Your task to perform on an android device: Go to Wikipedia Image 0: 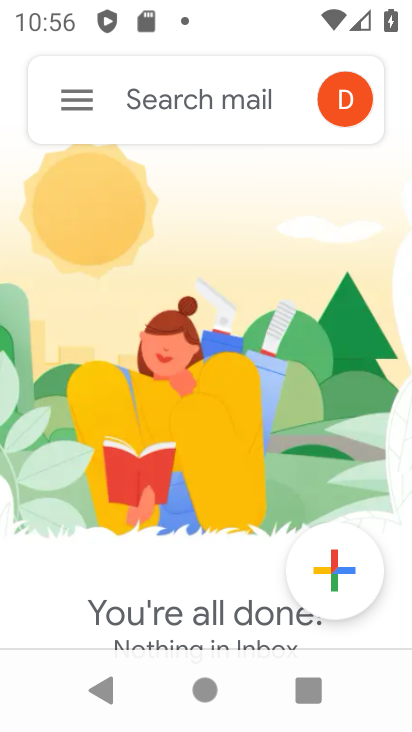
Step 0: press home button
Your task to perform on an android device: Go to Wikipedia Image 1: 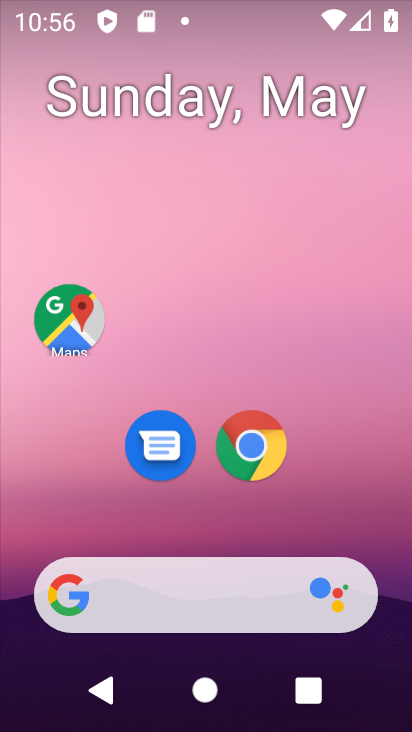
Step 1: click (252, 443)
Your task to perform on an android device: Go to Wikipedia Image 2: 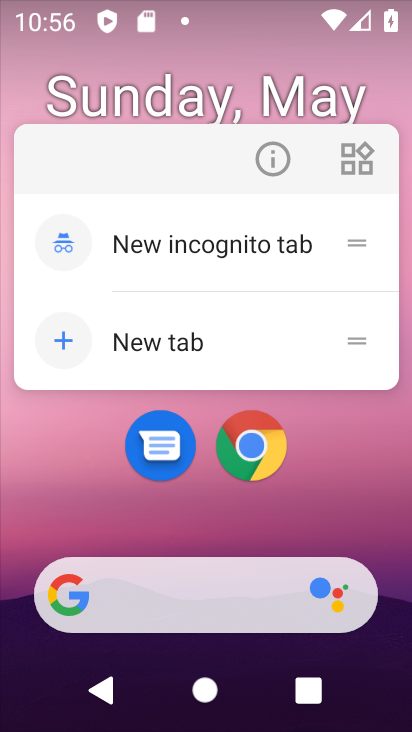
Step 2: click (329, 472)
Your task to perform on an android device: Go to Wikipedia Image 3: 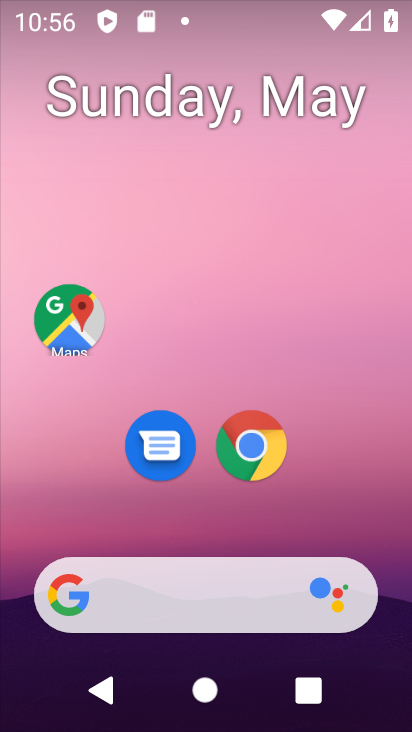
Step 3: click (249, 453)
Your task to perform on an android device: Go to Wikipedia Image 4: 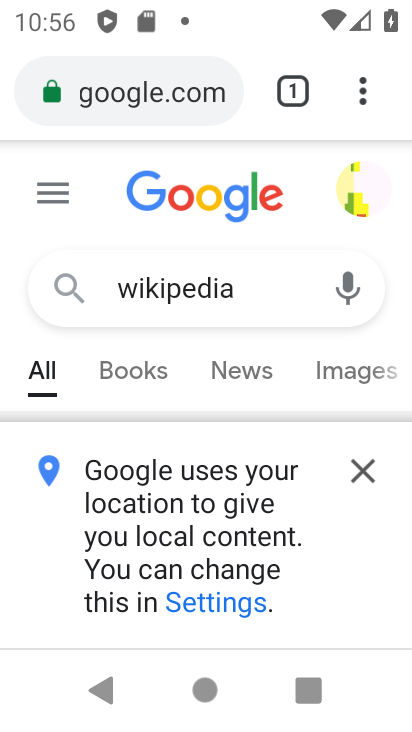
Step 4: click (125, 93)
Your task to perform on an android device: Go to Wikipedia Image 5: 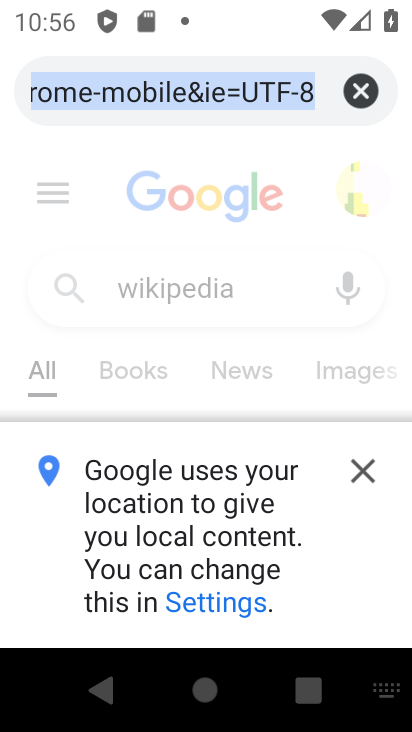
Step 5: type "wikipedia"
Your task to perform on an android device: Go to Wikipedia Image 6: 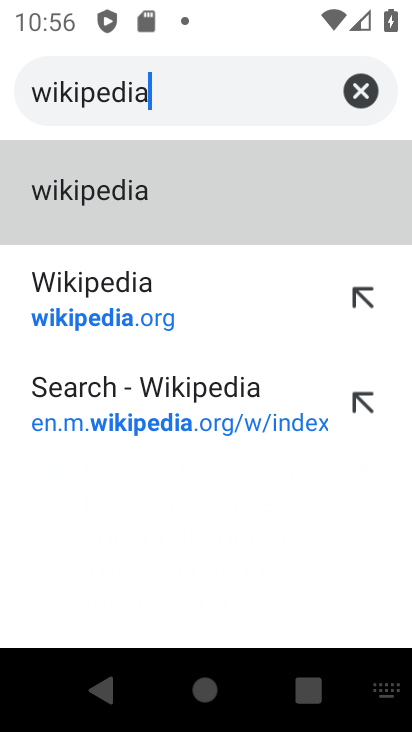
Step 6: click (127, 219)
Your task to perform on an android device: Go to Wikipedia Image 7: 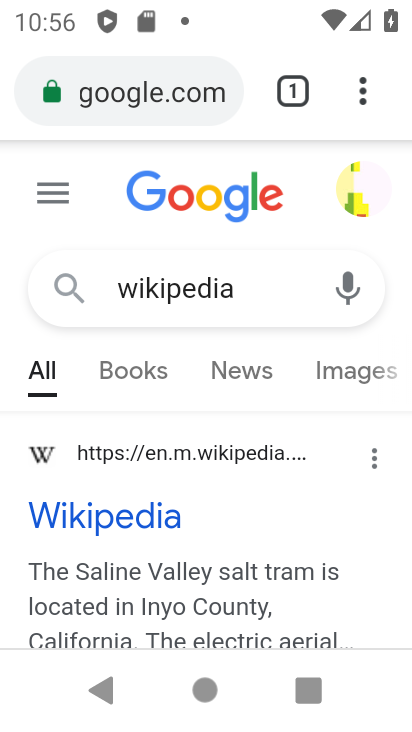
Step 7: task complete